Your task to perform on an android device: turn off data saver in the chrome app Image 0: 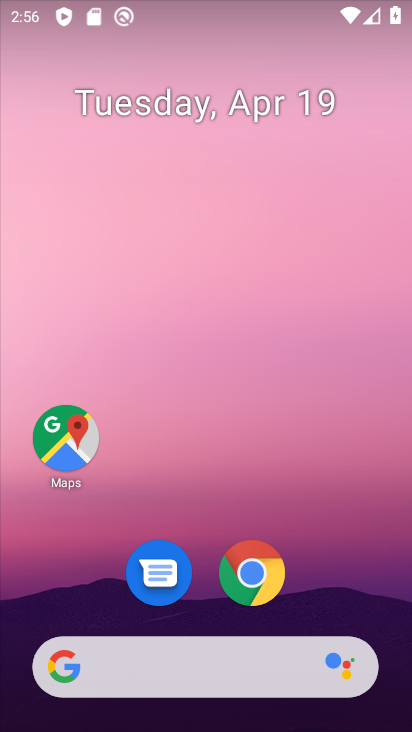
Step 0: click (256, 592)
Your task to perform on an android device: turn off data saver in the chrome app Image 1: 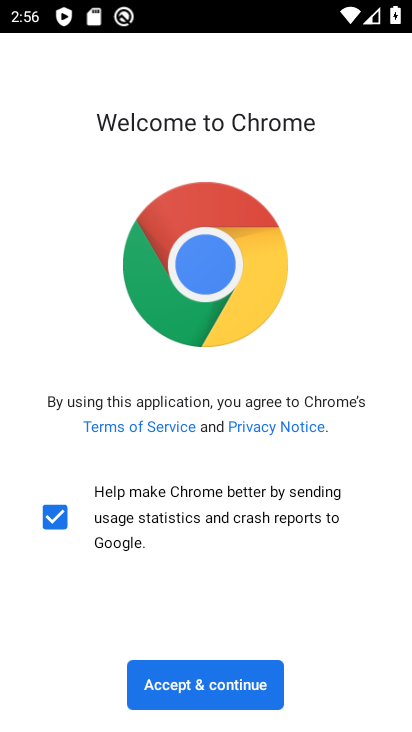
Step 1: click (228, 693)
Your task to perform on an android device: turn off data saver in the chrome app Image 2: 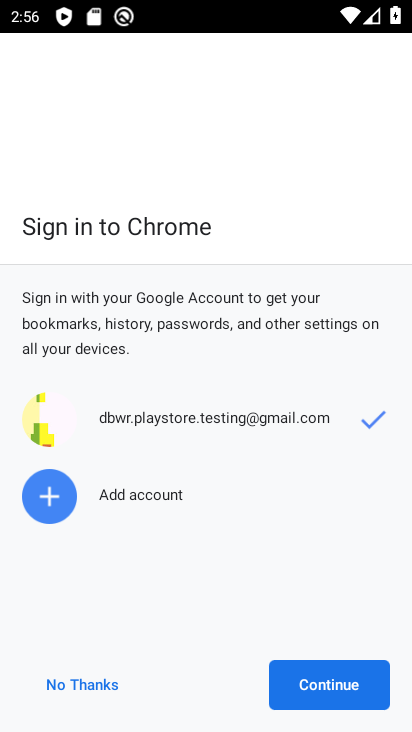
Step 2: click (316, 692)
Your task to perform on an android device: turn off data saver in the chrome app Image 3: 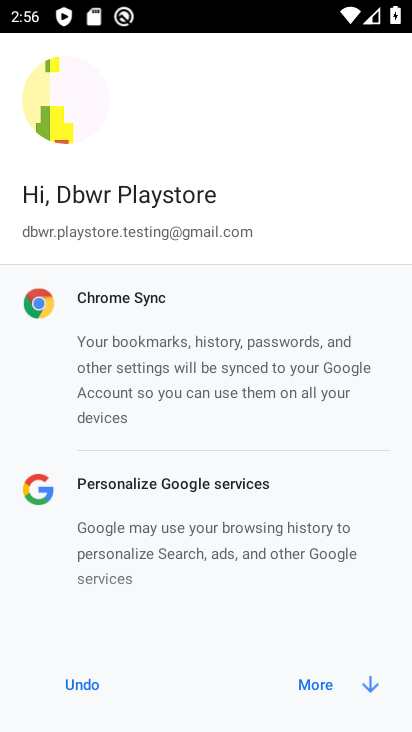
Step 3: click (309, 688)
Your task to perform on an android device: turn off data saver in the chrome app Image 4: 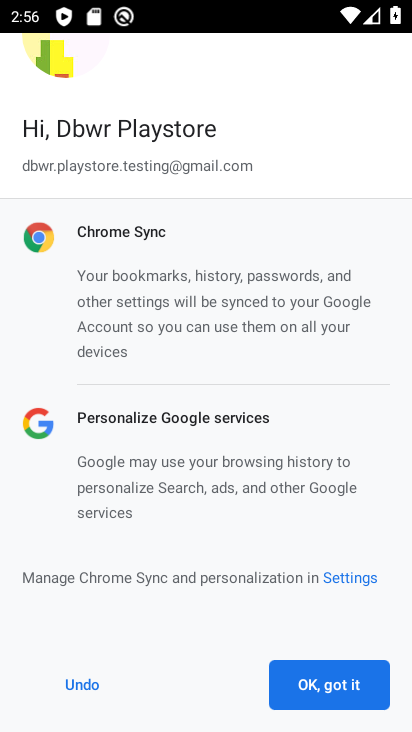
Step 4: click (310, 694)
Your task to perform on an android device: turn off data saver in the chrome app Image 5: 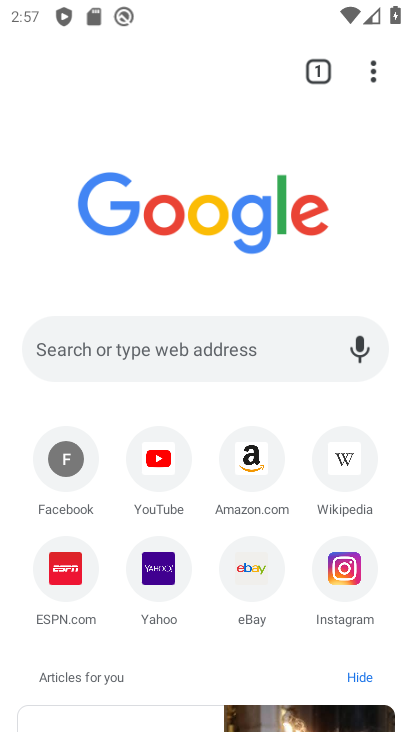
Step 5: drag from (380, 76) to (205, 619)
Your task to perform on an android device: turn off data saver in the chrome app Image 6: 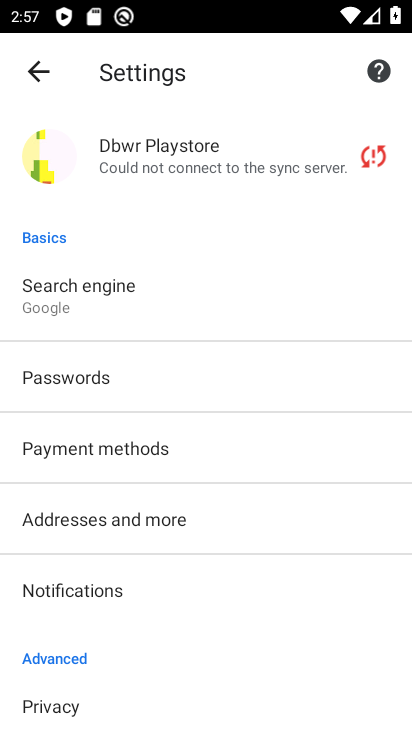
Step 6: drag from (179, 632) to (205, 275)
Your task to perform on an android device: turn off data saver in the chrome app Image 7: 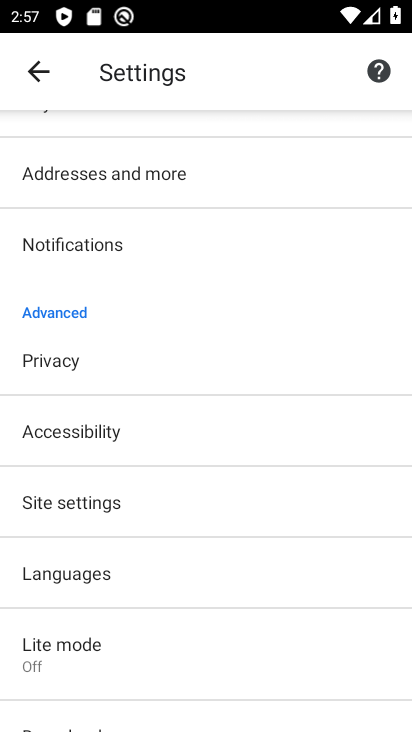
Step 7: drag from (136, 610) to (132, 382)
Your task to perform on an android device: turn off data saver in the chrome app Image 8: 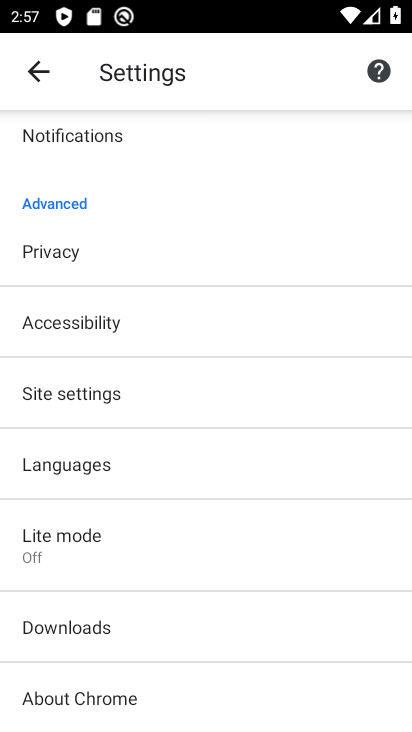
Step 8: click (90, 560)
Your task to perform on an android device: turn off data saver in the chrome app Image 9: 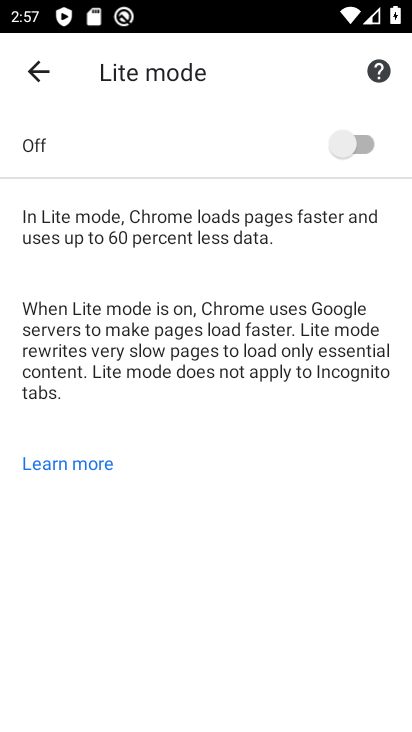
Step 9: task complete